Your task to perform on an android device: open app "Pandora - Music & Podcasts" (install if not already installed), go to login, and select forgot password Image 0: 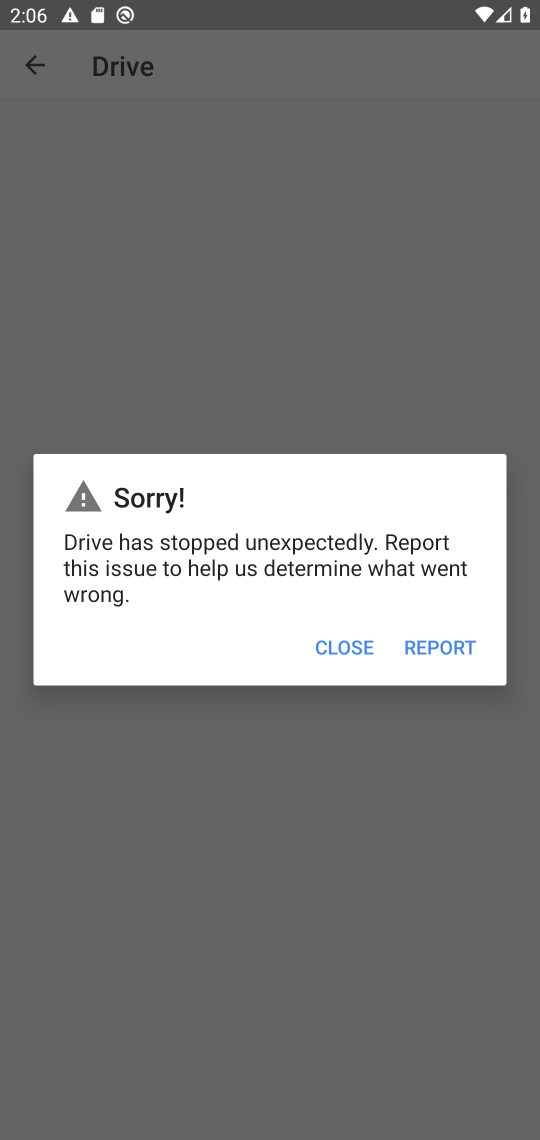
Step 0: press home button
Your task to perform on an android device: open app "Pandora - Music & Podcasts" (install if not already installed), go to login, and select forgot password Image 1: 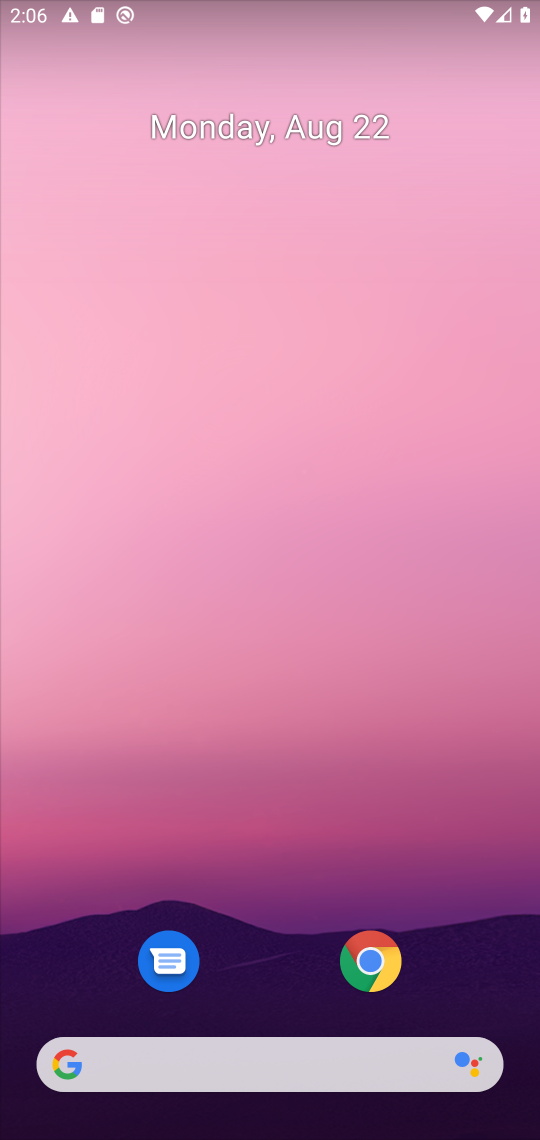
Step 1: drag from (458, 860) to (454, 44)
Your task to perform on an android device: open app "Pandora - Music & Podcasts" (install if not already installed), go to login, and select forgot password Image 2: 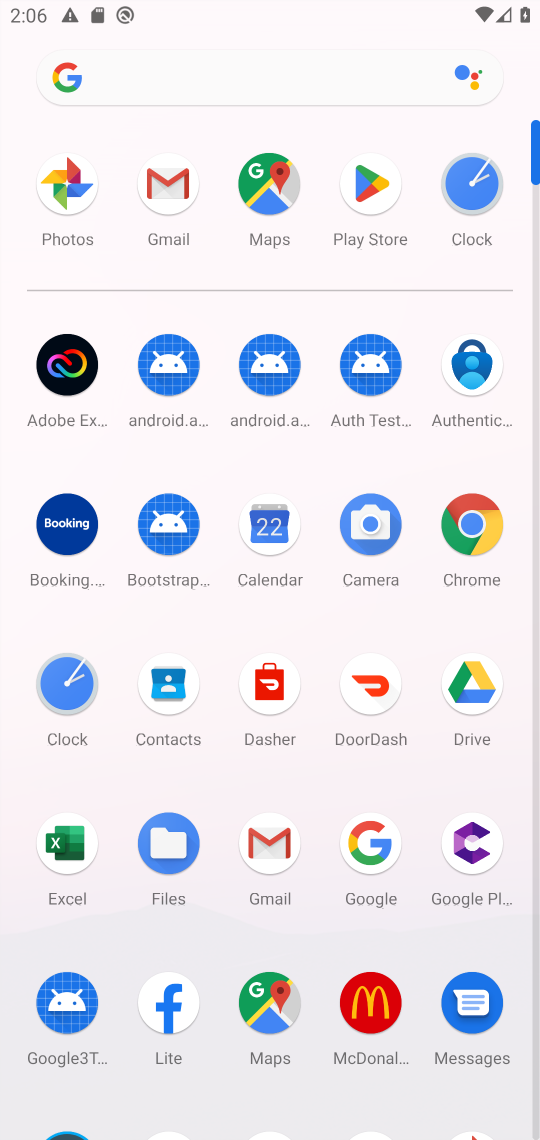
Step 2: click (370, 180)
Your task to perform on an android device: open app "Pandora - Music & Podcasts" (install if not already installed), go to login, and select forgot password Image 3: 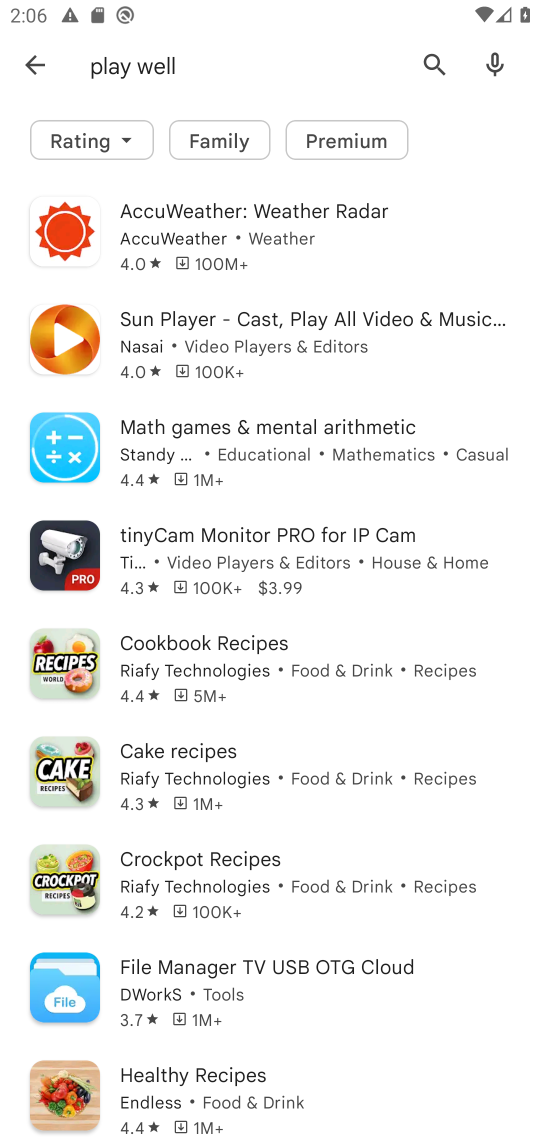
Step 3: press back button
Your task to perform on an android device: open app "Pandora - Music & Podcasts" (install if not already installed), go to login, and select forgot password Image 4: 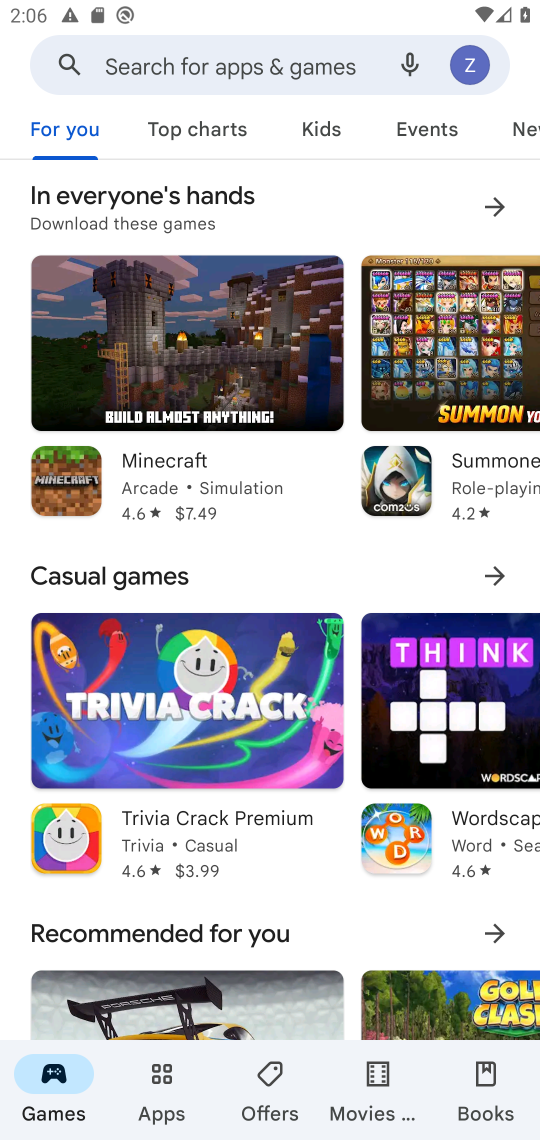
Step 4: click (312, 60)
Your task to perform on an android device: open app "Pandora - Music & Podcasts" (install if not already installed), go to login, and select forgot password Image 5: 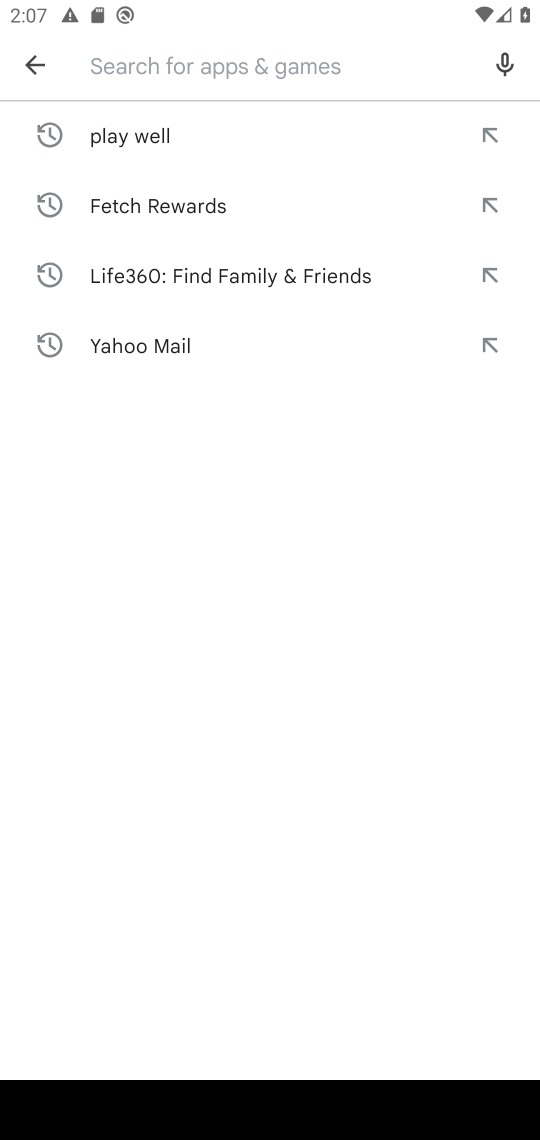
Step 5: type "Pandora - Music & Podcasts"
Your task to perform on an android device: open app "Pandora - Music & Podcasts" (install if not already installed), go to login, and select forgot password Image 6: 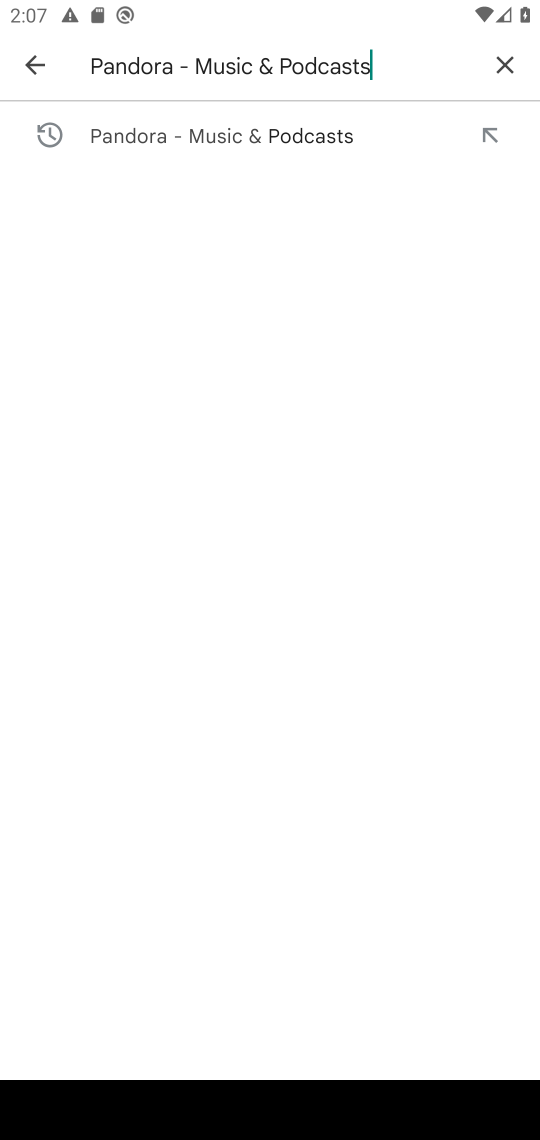
Step 6: press enter
Your task to perform on an android device: open app "Pandora - Music & Podcasts" (install if not already installed), go to login, and select forgot password Image 7: 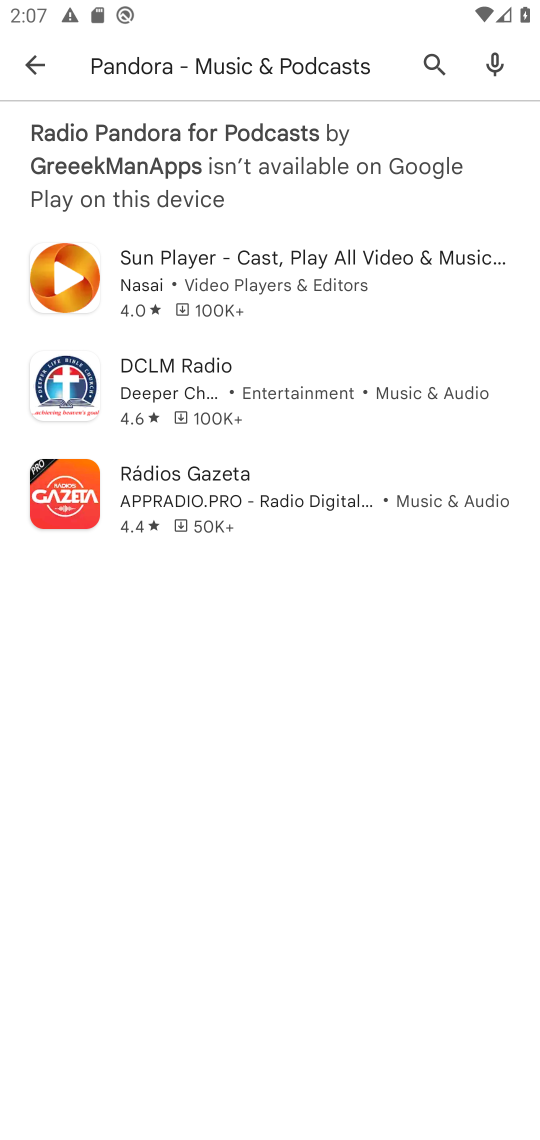
Step 7: task complete